Your task to perform on an android device: change the clock style Image 0: 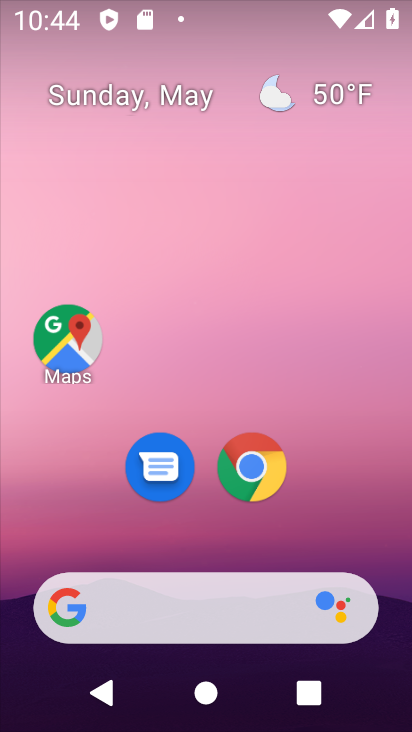
Step 0: drag from (183, 568) to (251, 60)
Your task to perform on an android device: change the clock style Image 1: 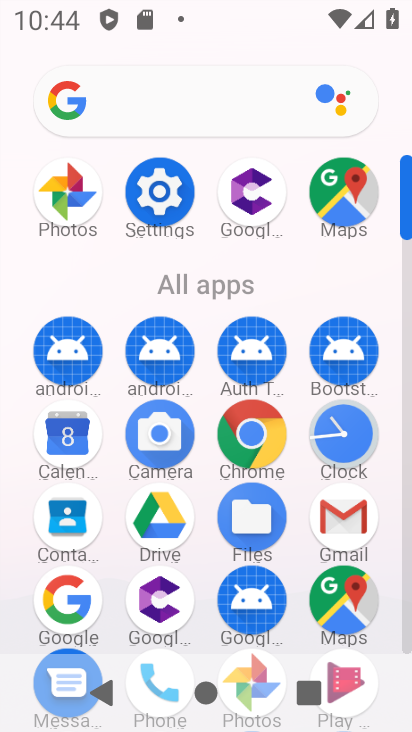
Step 1: click (348, 436)
Your task to perform on an android device: change the clock style Image 2: 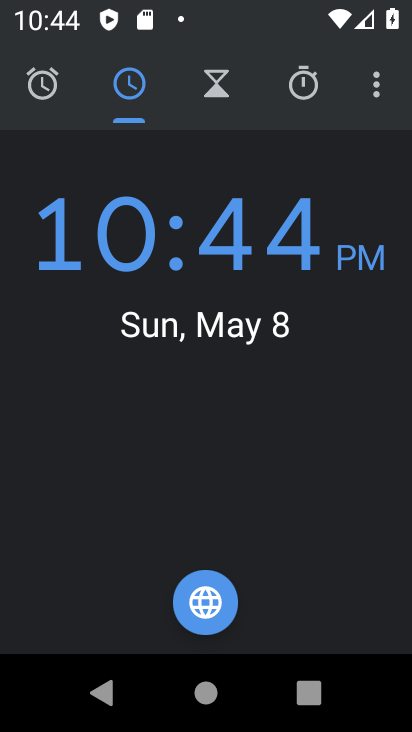
Step 2: click (394, 89)
Your task to perform on an android device: change the clock style Image 3: 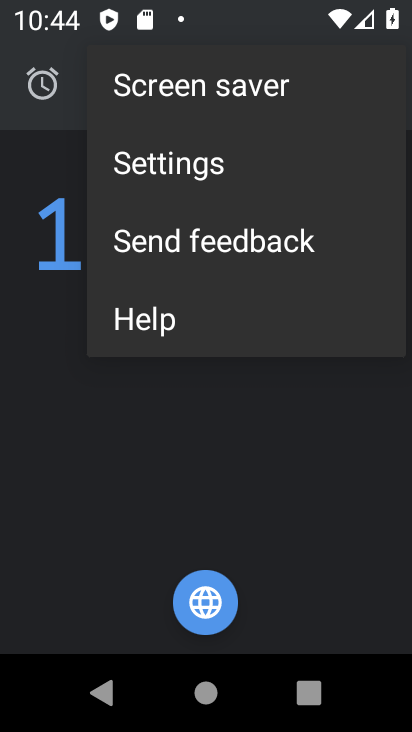
Step 3: click (333, 157)
Your task to perform on an android device: change the clock style Image 4: 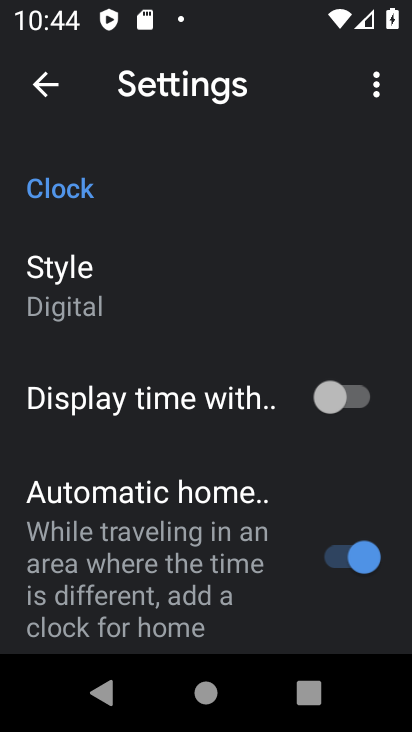
Step 4: click (207, 303)
Your task to perform on an android device: change the clock style Image 5: 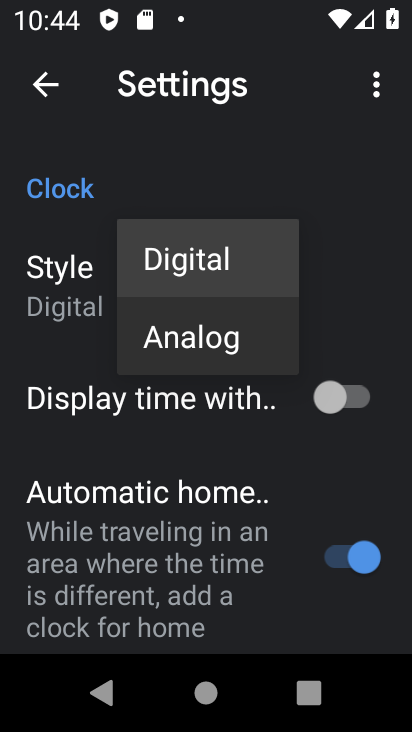
Step 5: click (221, 337)
Your task to perform on an android device: change the clock style Image 6: 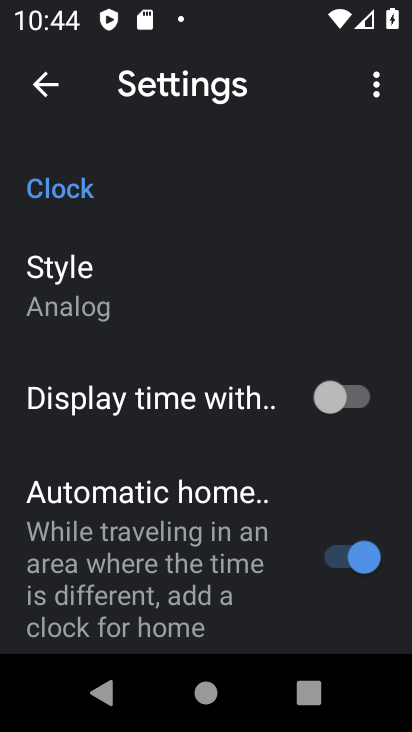
Step 6: task complete